Your task to perform on an android device: Search for vegetarian restaurants on Maps Image 0: 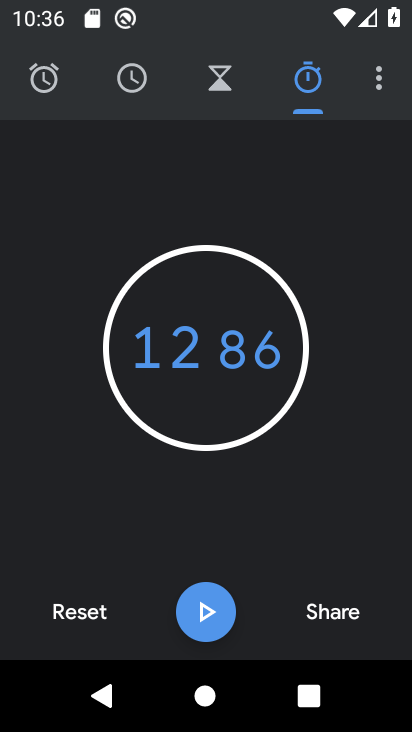
Step 0: press home button
Your task to perform on an android device: Search for vegetarian restaurants on Maps Image 1: 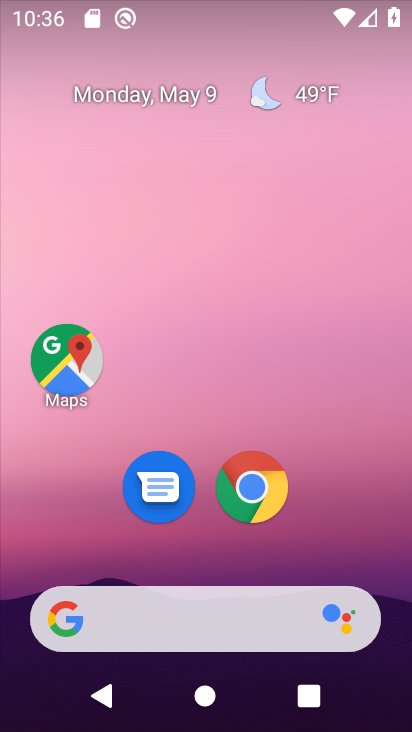
Step 1: click (75, 337)
Your task to perform on an android device: Search for vegetarian restaurants on Maps Image 2: 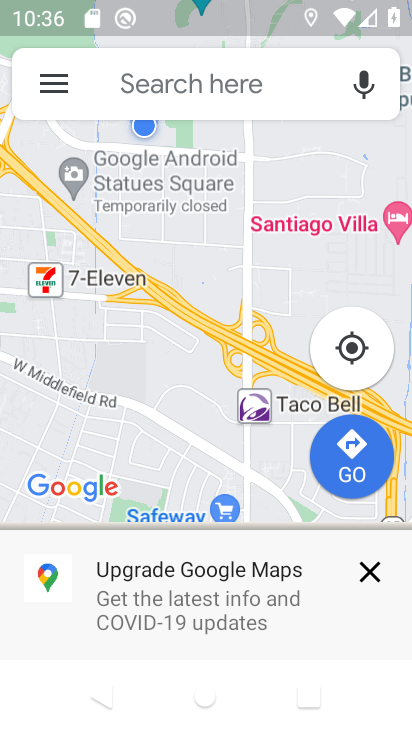
Step 2: click (144, 92)
Your task to perform on an android device: Search for vegetarian restaurants on Maps Image 3: 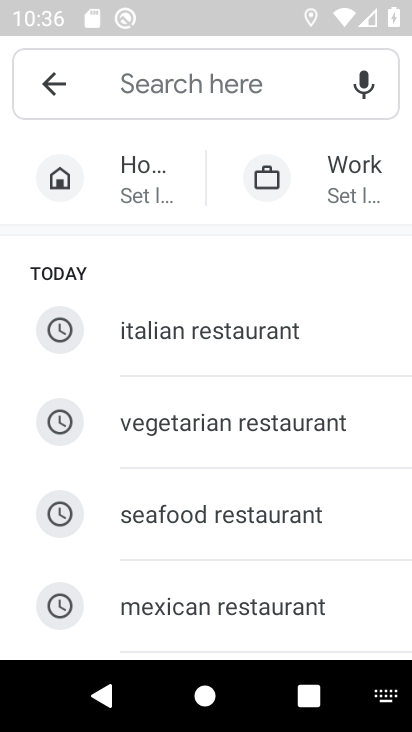
Step 3: click (175, 427)
Your task to perform on an android device: Search for vegetarian restaurants on Maps Image 4: 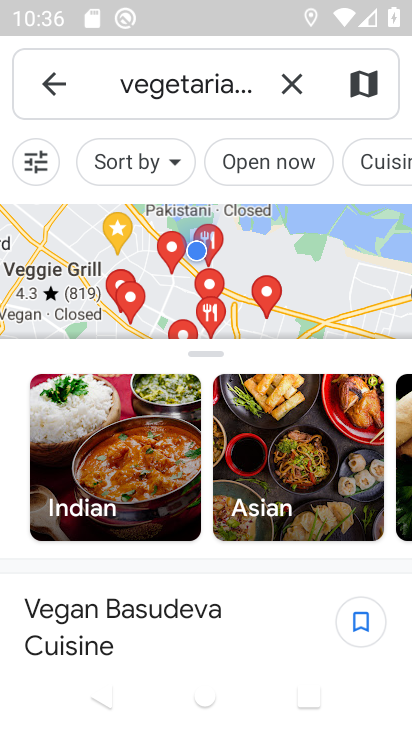
Step 4: task complete